Your task to perform on an android device: open the mobile data screen to see how much data has been used Image 0: 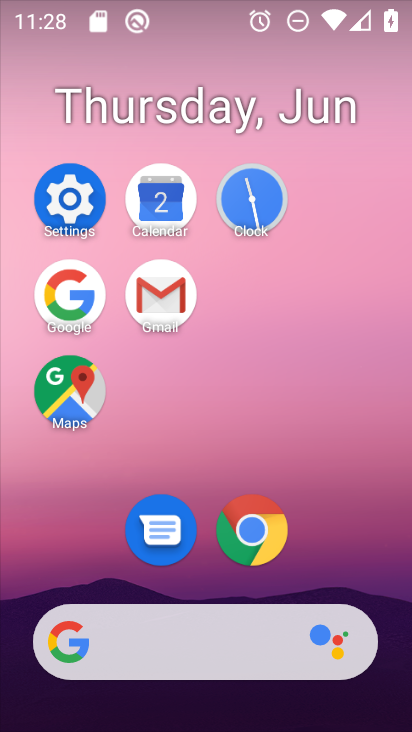
Step 0: click (92, 186)
Your task to perform on an android device: open the mobile data screen to see how much data has been used Image 1: 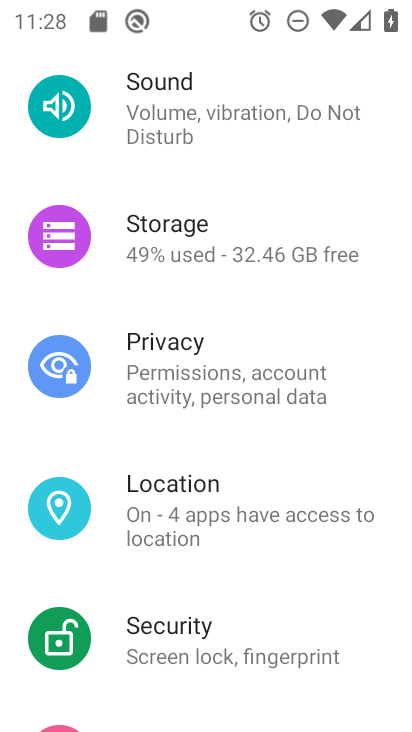
Step 1: drag from (294, 149) to (320, 637)
Your task to perform on an android device: open the mobile data screen to see how much data has been used Image 2: 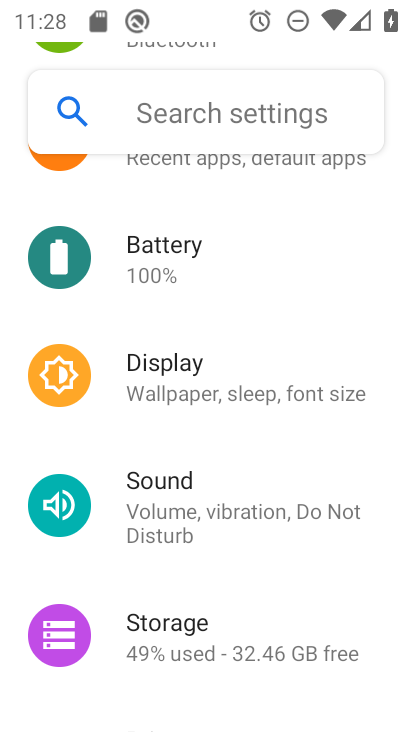
Step 2: drag from (256, 227) to (215, 580)
Your task to perform on an android device: open the mobile data screen to see how much data has been used Image 3: 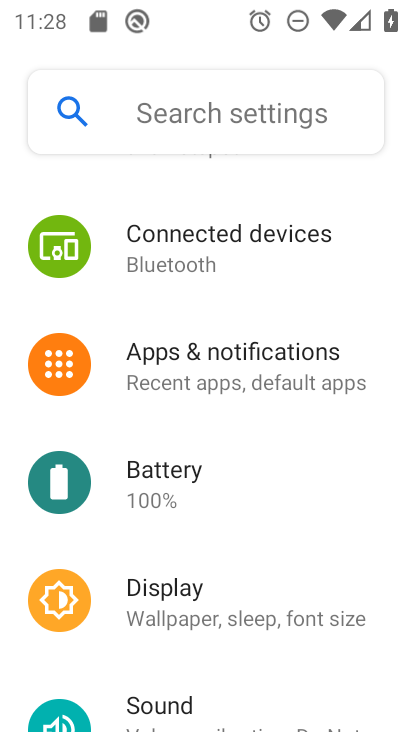
Step 3: drag from (344, 228) to (308, 599)
Your task to perform on an android device: open the mobile data screen to see how much data has been used Image 4: 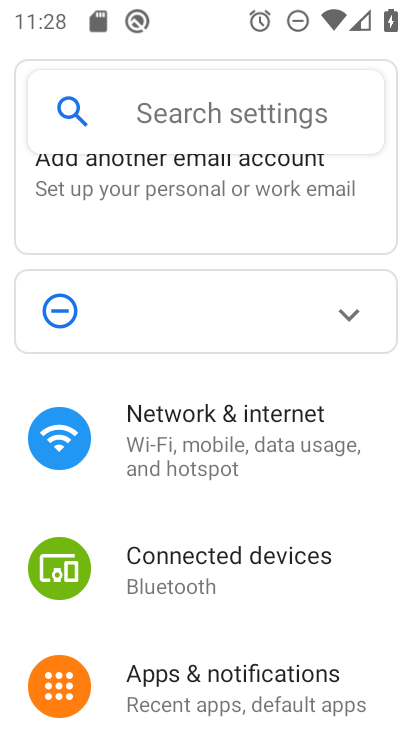
Step 4: click (264, 442)
Your task to perform on an android device: open the mobile data screen to see how much data has been used Image 5: 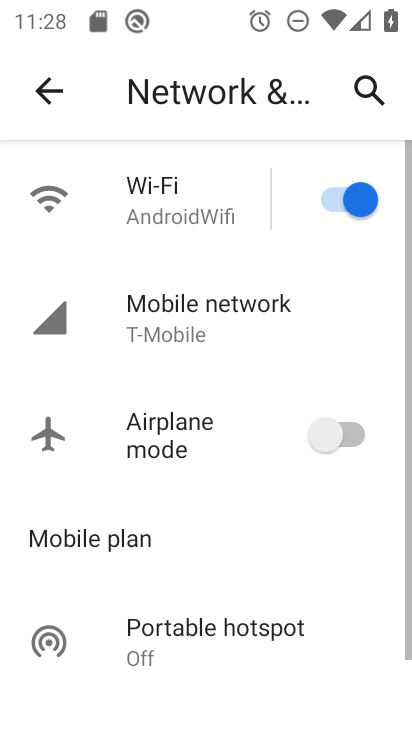
Step 5: click (170, 311)
Your task to perform on an android device: open the mobile data screen to see how much data has been used Image 6: 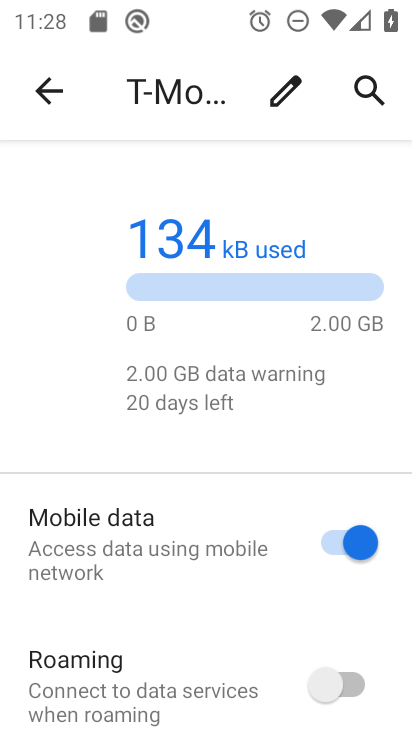
Step 6: task complete